Your task to perform on an android device: What's the weather like in Beijing? Image 0: 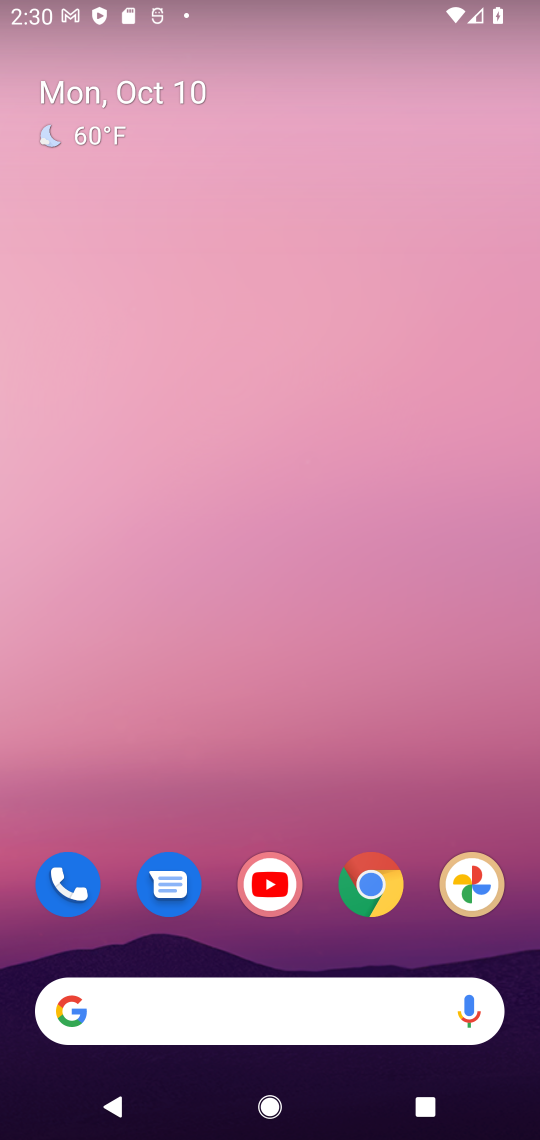
Step 0: click (214, 1020)
Your task to perform on an android device: What's the weather like in Beijing? Image 1: 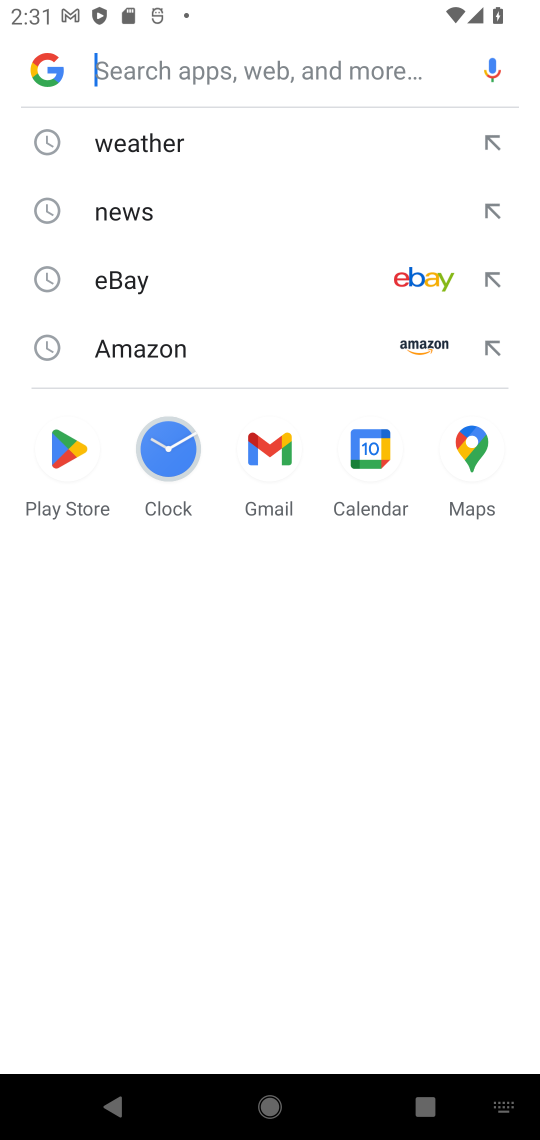
Step 1: click (201, 69)
Your task to perform on an android device: What's the weather like in Beijing? Image 2: 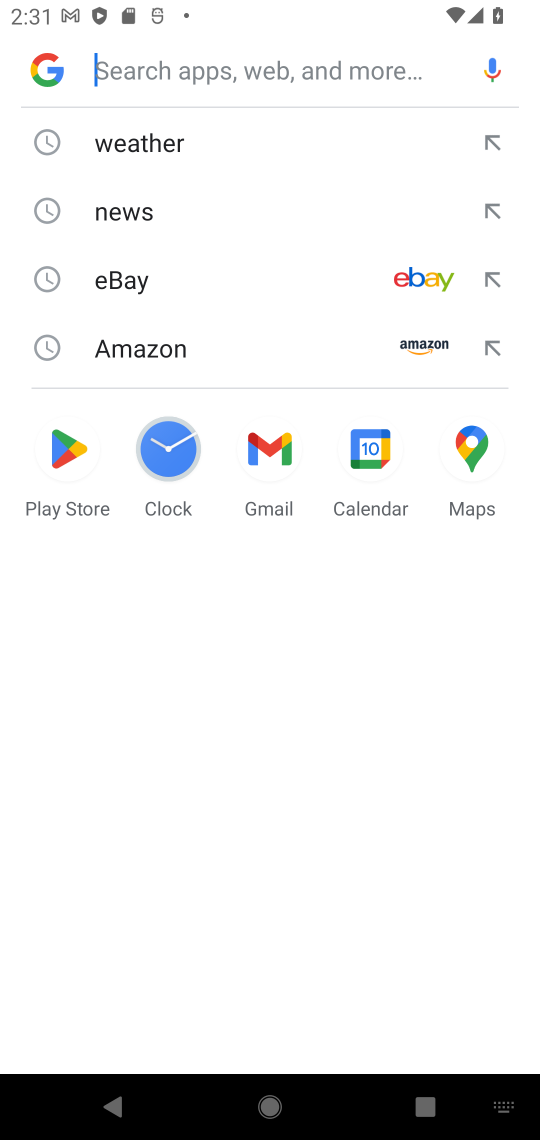
Step 2: type " the weather like in Beijing"
Your task to perform on an android device: What's the weather like in Beijing? Image 3: 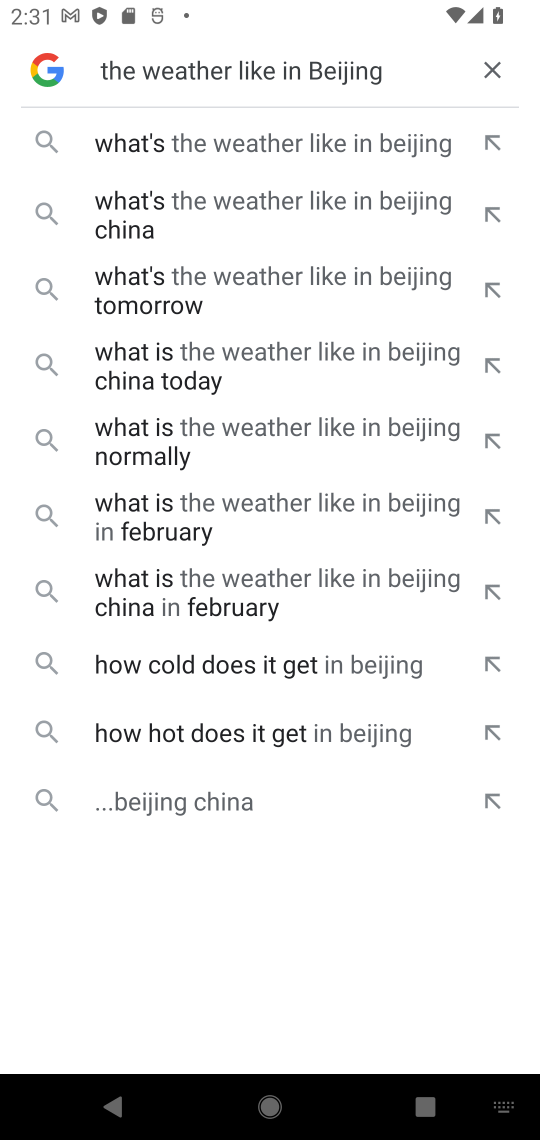
Step 3: click (225, 145)
Your task to perform on an android device: What's the weather like in Beijing? Image 4: 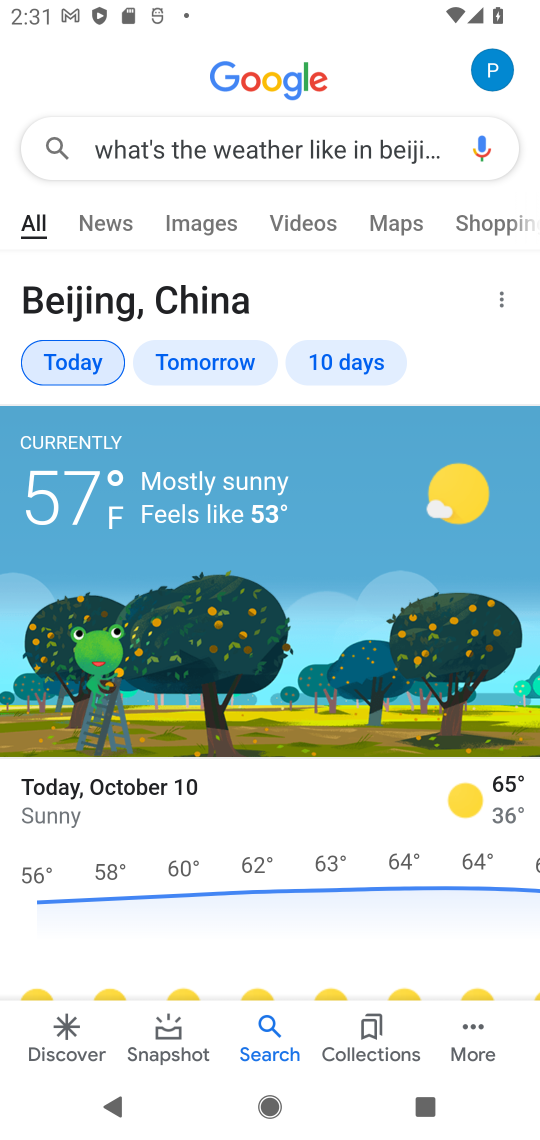
Step 4: task complete